Your task to perform on an android device: Open Google Maps Image 0: 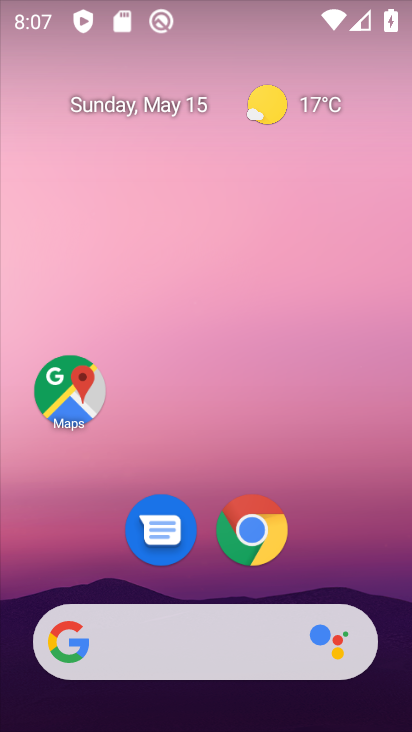
Step 0: drag from (205, 721) to (212, 151)
Your task to perform on an android device: Open Google Maps Image 1: 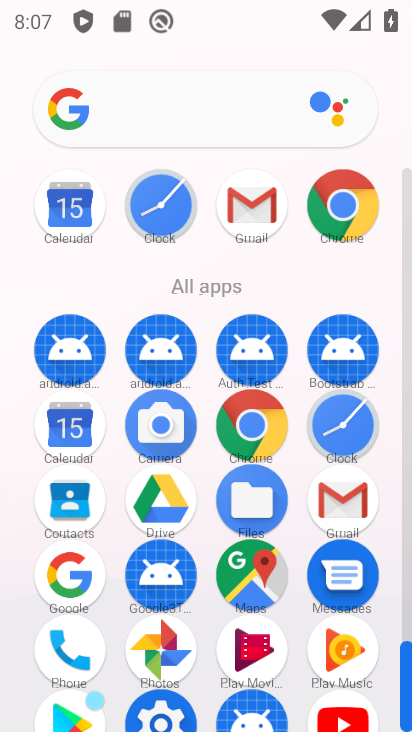
Step 1: click (255, 575)
Your task to perform on an android device: Open Google Maps Image 2: 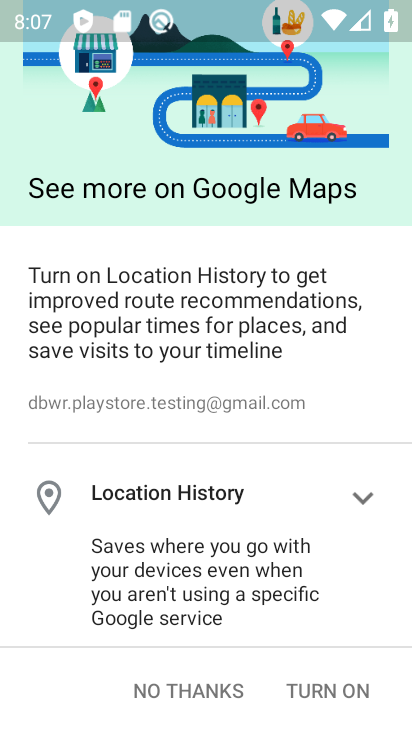
Step 2: click (217, 688)
Your task to perform on an android device: Open Google Maps Image 3: 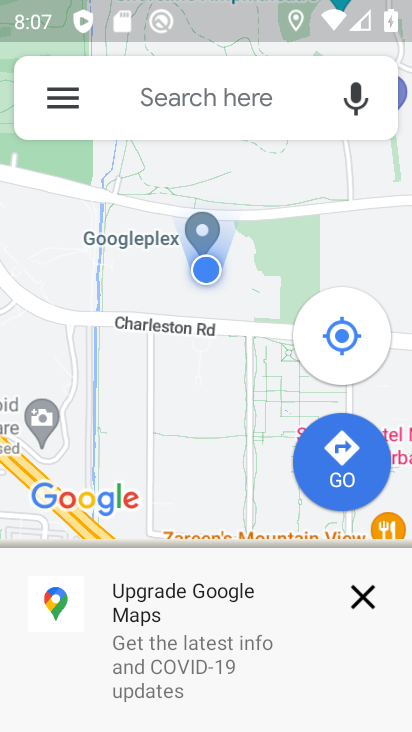
Step 3: task complete